Your task to perform on an android device: Go to network settings Image 0: 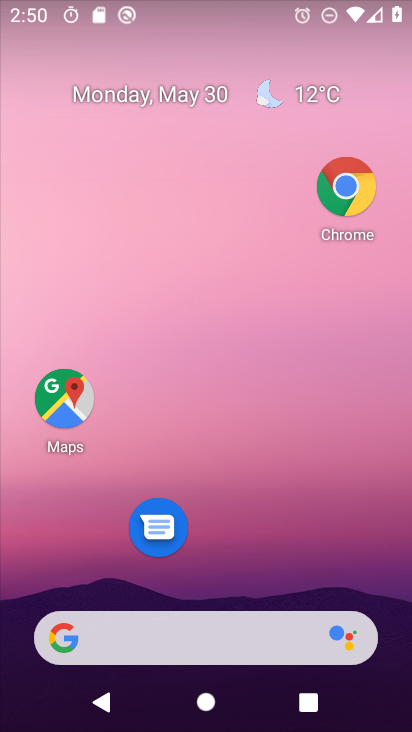
Step 0: drag from (212, 581) to (269, 189)
Your task to perform on an android device: Go to network settings Image 1: 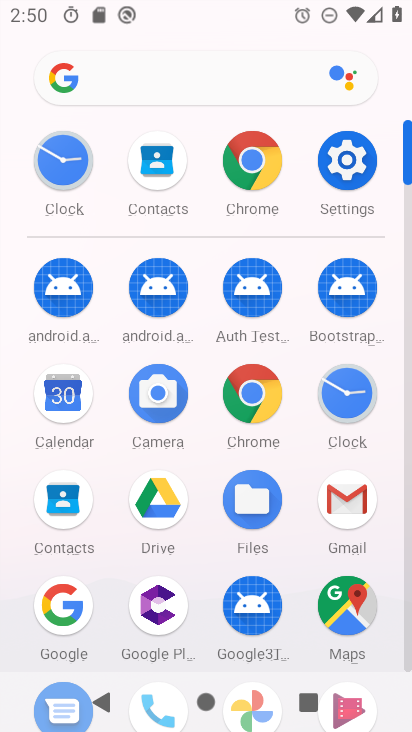
Step 1: click (347, 177)
Your task to perform on an android device: Go to network settings Image 2: 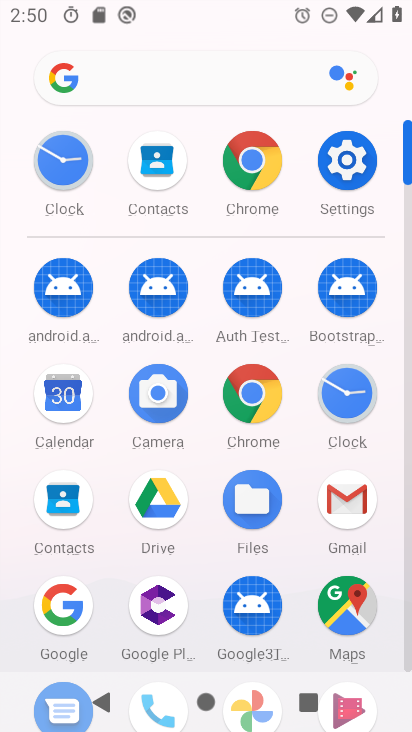
Step 2: click (347, 177)
Your task to perform on an android device: Go to network settings Image 3: 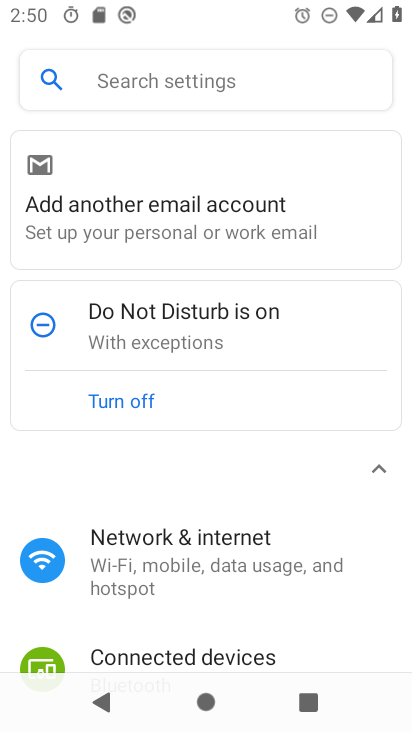
Step 3: drag from (219, 533) to (338, 89)
Your task to perform on an android device: Go to network settings Image 4: 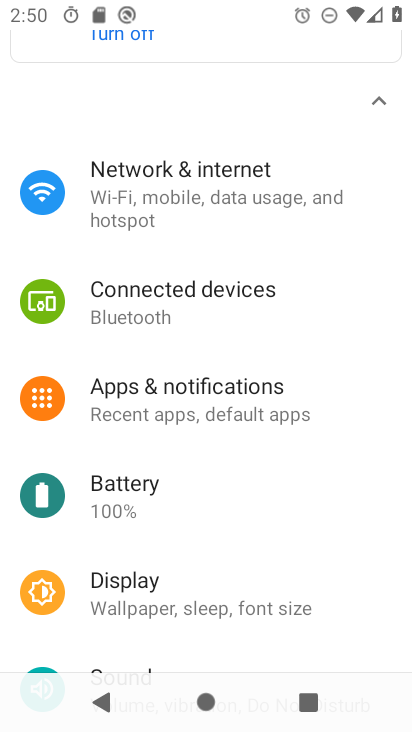
Step 4: click (174, 168)
Your task to perform on an android device: Go to network settings Image 5: 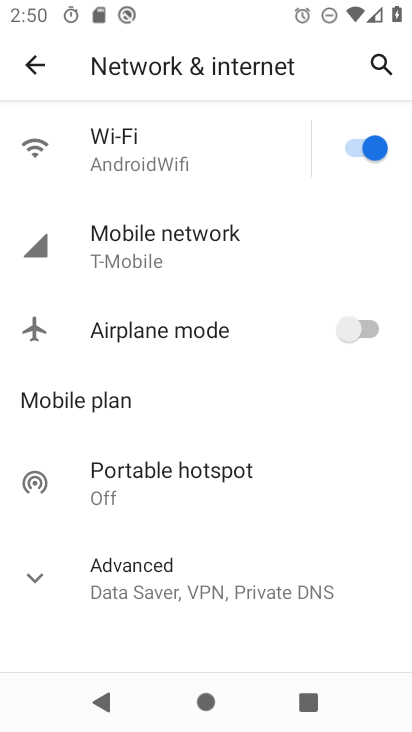
Step 5: task complete